Your task to perform on an android device: turn off improve location accuracy Image 0: 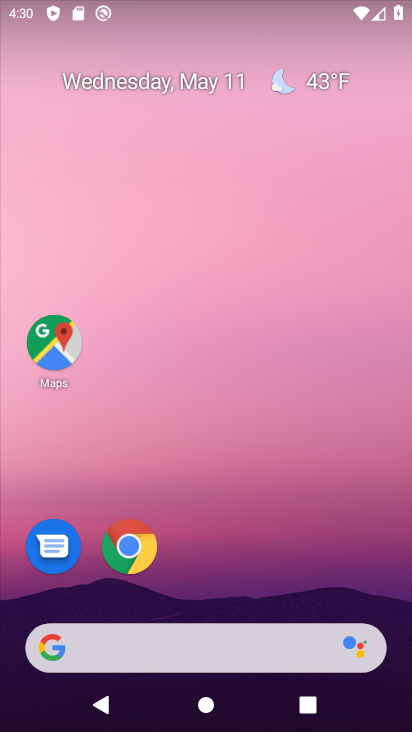
Step 0: drag from (225, 623) to (180, 298)
Your task to perform on an android device: turn off improve location accuracy Image 1: 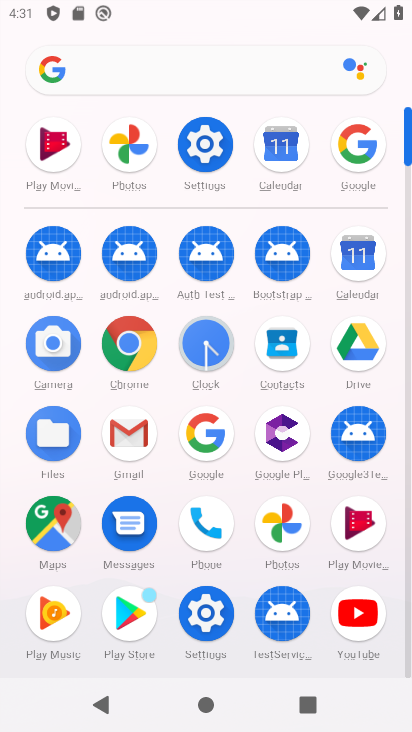
Step 1: click (209, 611)
Your task to perform on an android device: turn off improve location accuracy Image 2: 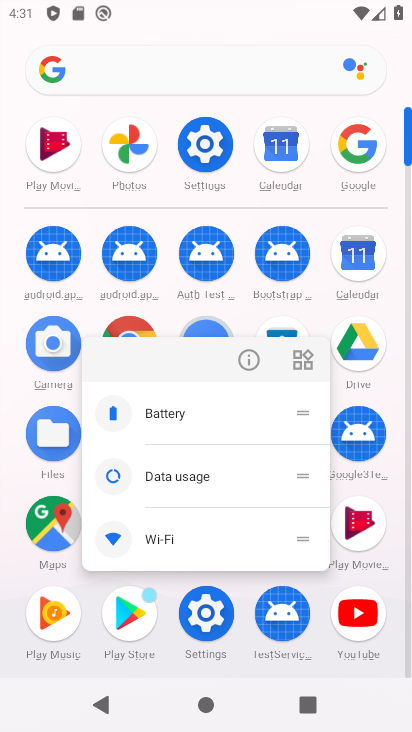
Step 2: click (202, 602)
Your task to perform on an android device: turn off improve location accuracy Image 3: 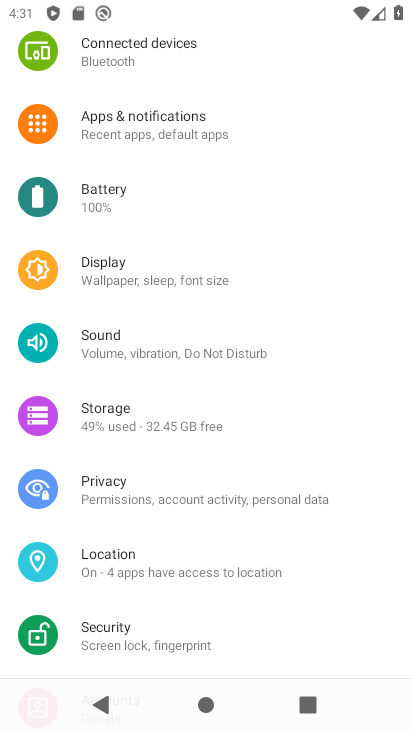
Step 3: click (116, 565)
Your task to perform on an android device: turn off improve location accuracy Image 4: 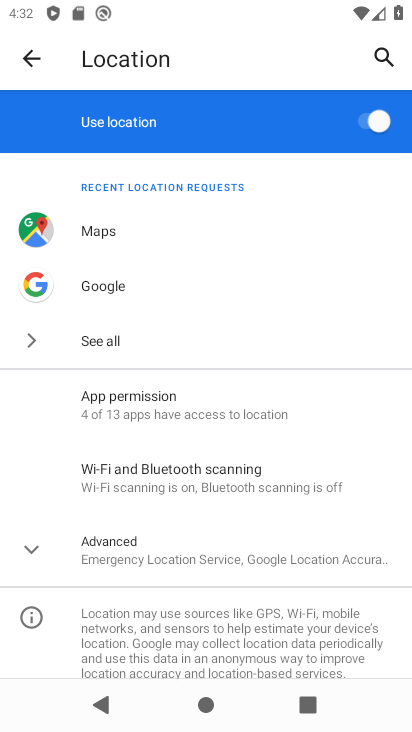
Step 4: click (159, 538)
Your task to perform on an android device: turn off improve location accuracy Image 5: 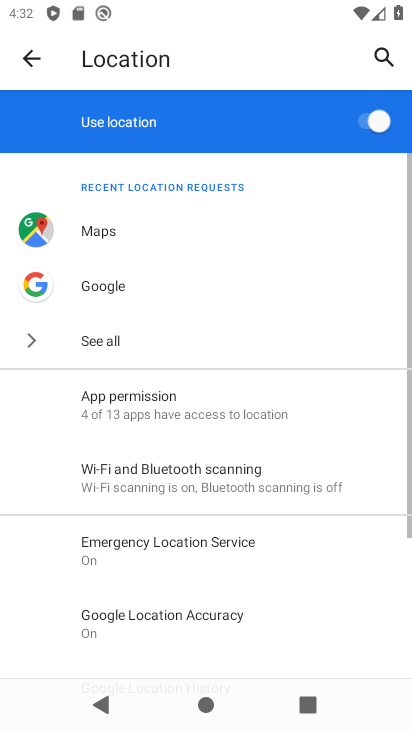
Step 5: drag from (174, 640) to (174, 376)
Your task to perform on an android device: turn off improve location accuracy Image 6: 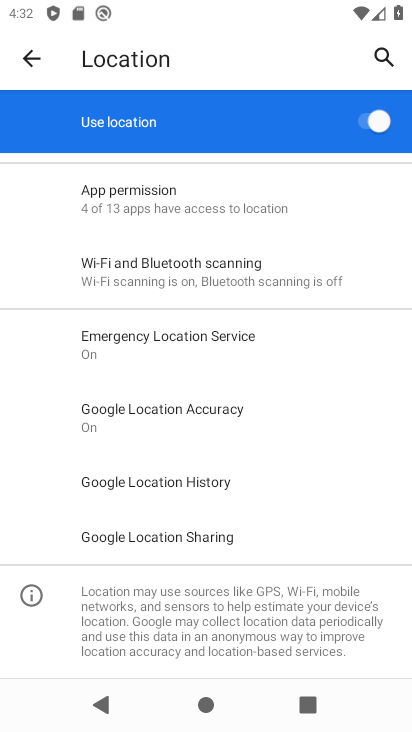
Step 6: click (142, 418)
Your task to perform on an android device: turn off improve location accuracy Image 7: 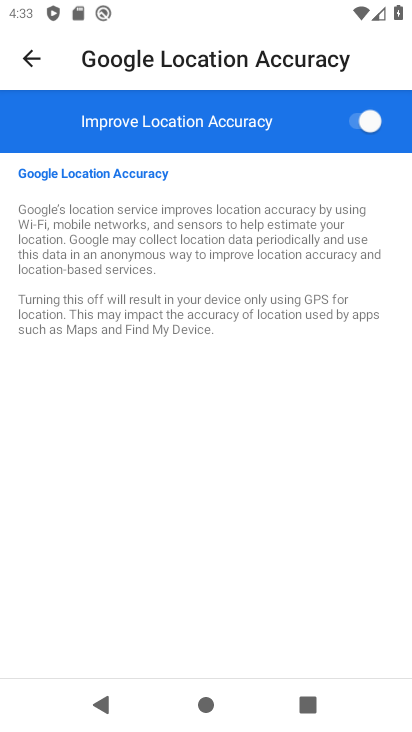
Step 7: click (352, 120)
Your task to perform on an android device: turn off improve location accuracy Image 8: 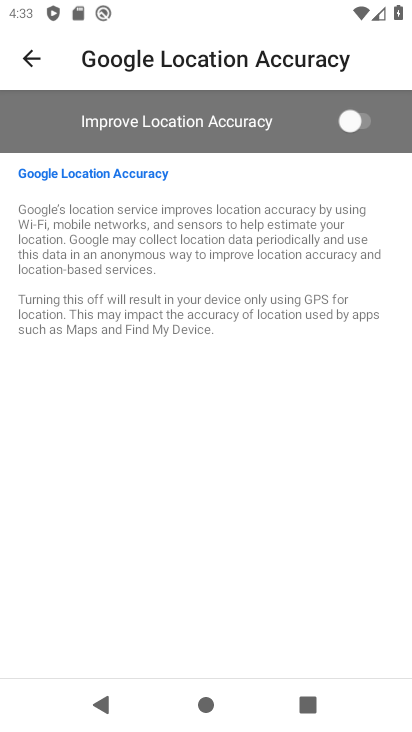
Step 8: task complete